Your task to perform on an android device: Open Reddit.com Image 0: 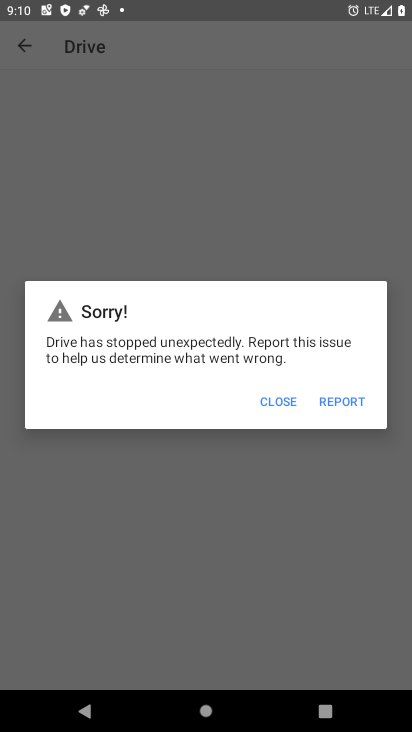
Step 0: press home button
Your task to perform on an android device: Open Reddit.com Image 1: 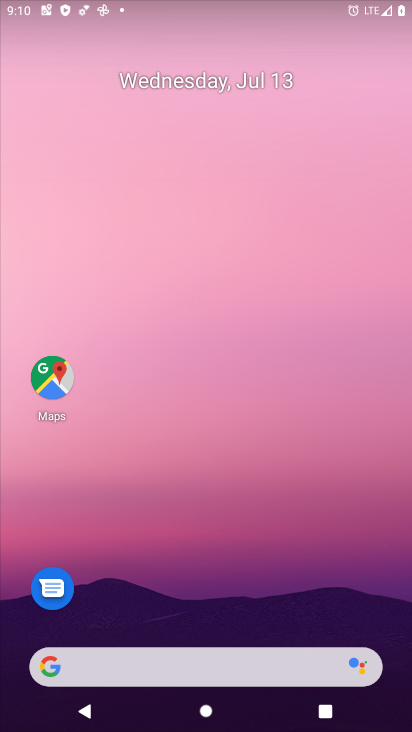
Step 1: click (383, 459)
Your task to perform on an android device: Open Reddit.com Image 2: 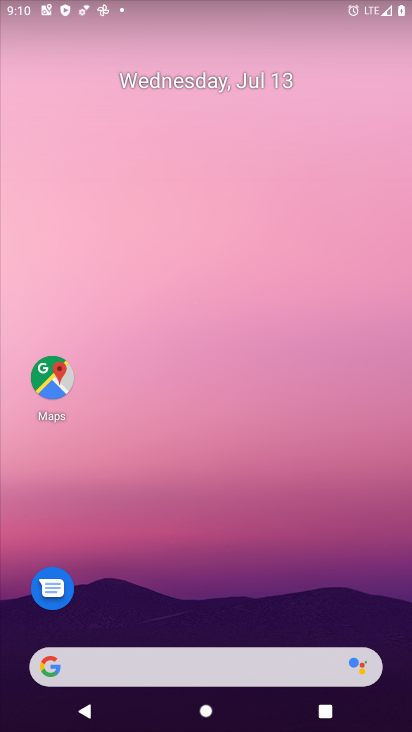
Step 2: click (123, 672)
Your task to perform on an android device: Open Reddit.com Image 3: 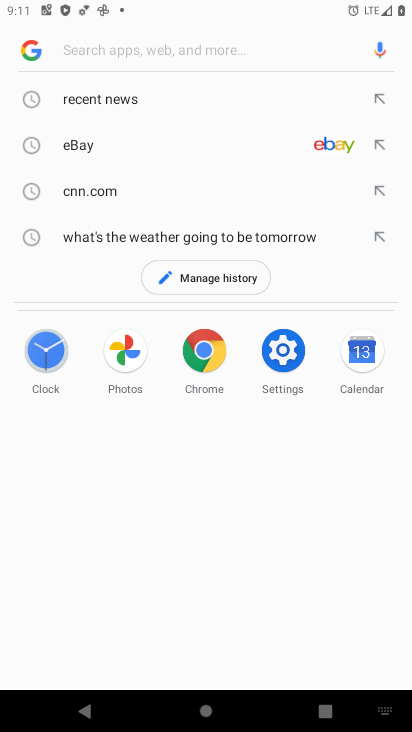
Step 3: type "reddit.com"
Your task to perform on an android device: Open Reddit.com Image 4: 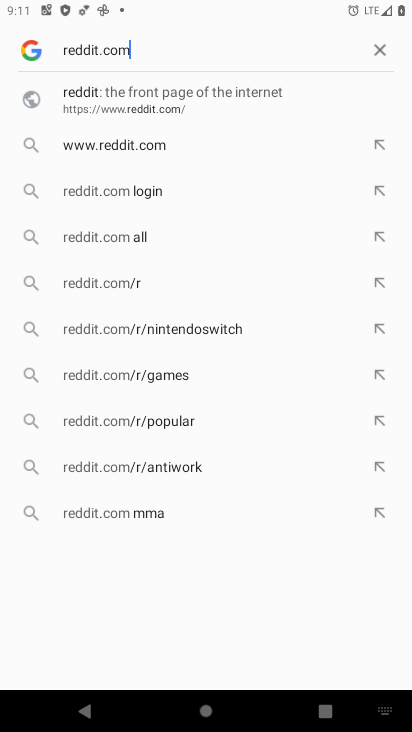
Step 4: click (236, 94)
Your task to perform on an android device: Open Reddit.com Image 5: 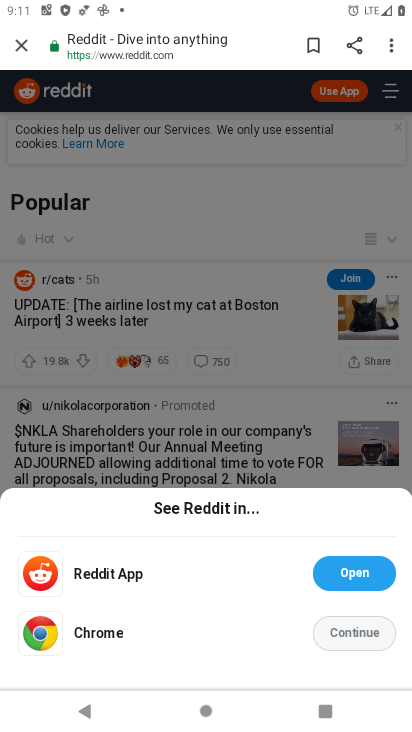
Step 5: task complete